Your task to perform on an android device: toggle priority inbox in the gmail app Image 0: 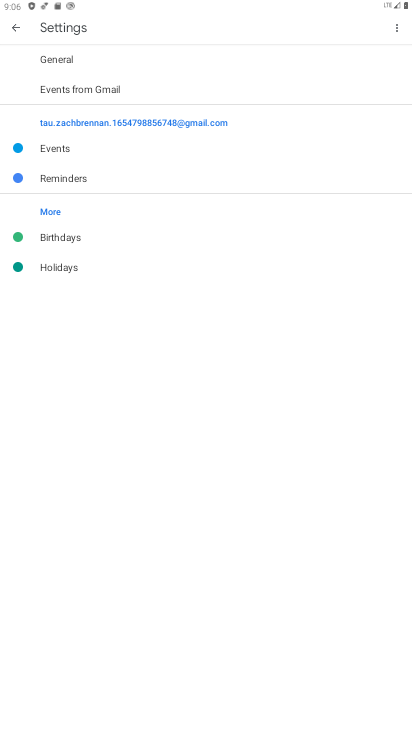
Step 0: press home button
Your task to perform on an android device: toggle priority inbox in the gmail app Image 1: 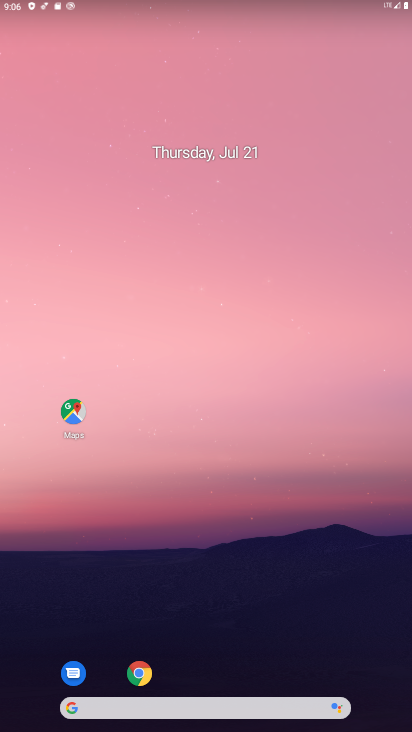
Step 1: drag from (232, 664) to (270, 40)
Your task to perform on an android device: toggle priority inbox in the gmail app Image 2: 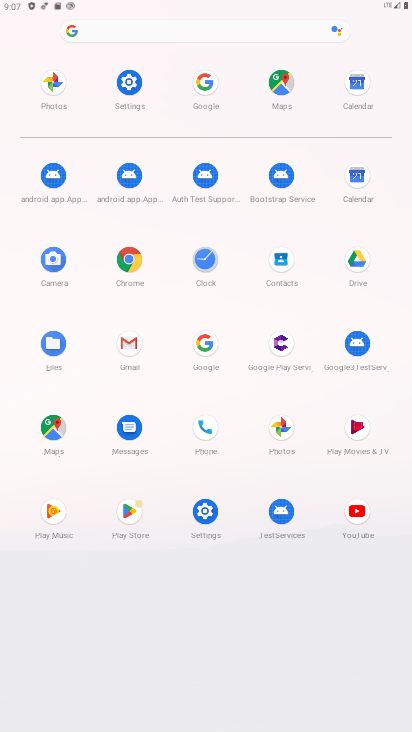
Step 2: click (127, 342)
Your task to perform on an android device: toggle priority inbox in the gmail app Image 3: 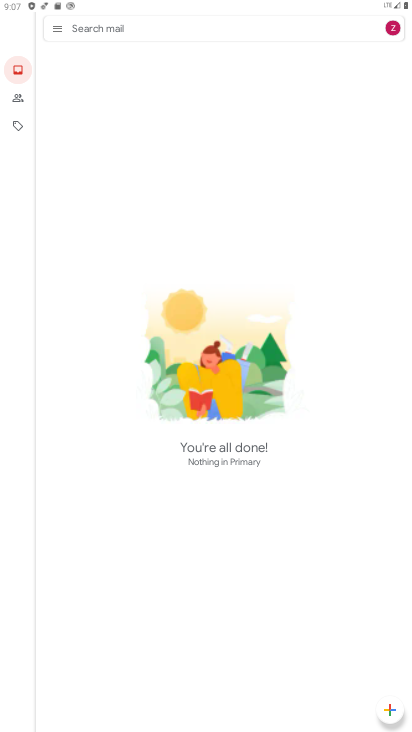
Step 3: press home button
Your task to perform on an android device: toggle priority inbox in the gmail app Image 4: 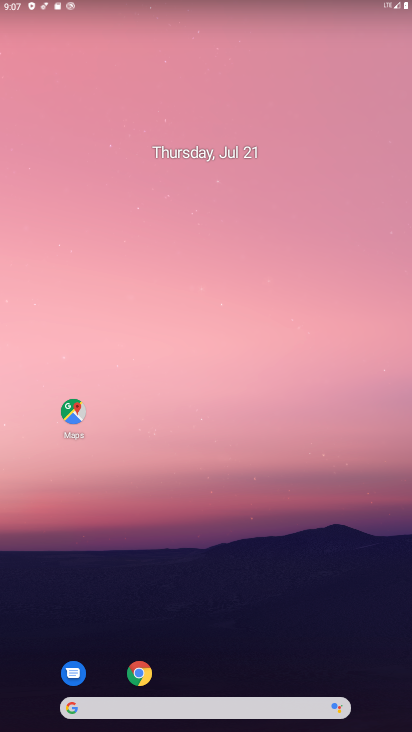
Step 4: drag from (183, 651) to (202, 81)
Your task to perform on an android device: toggle priority inbox in the gmail app Image 5: 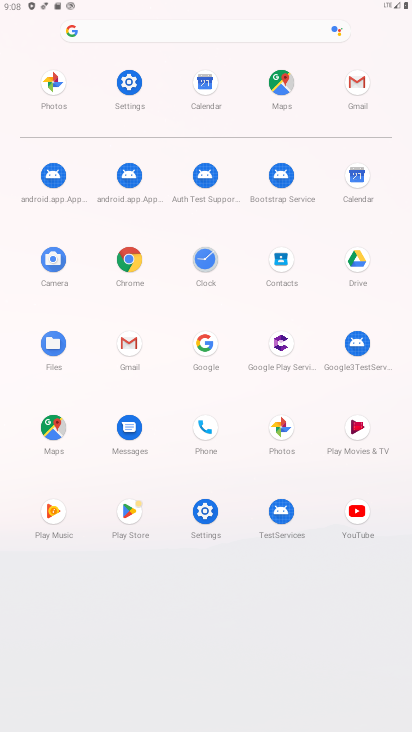
Step 5: click (342, 96)
Your task to perform on an android device: toggle priority inbox in the gmail app Image 6: 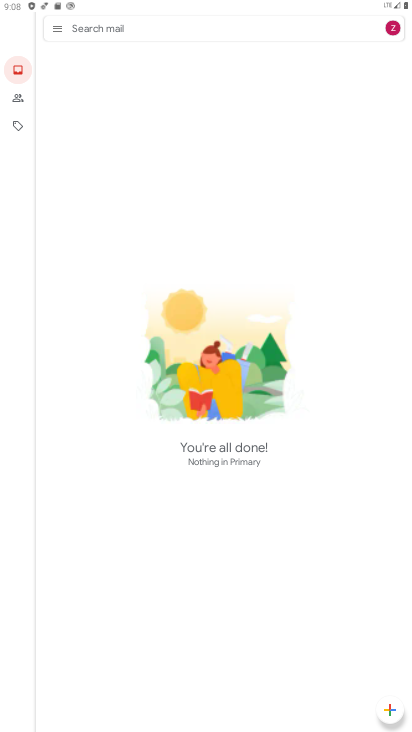
Step 6: click (53, 30)
Your task to perform on an android device: toggle priority inbox in the gmail app Image 7: 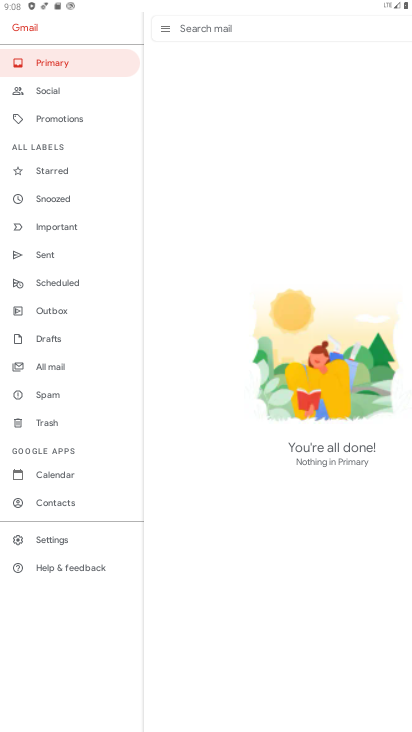
Step 7: click (60, 538)
Your task to perform on an android device: toggle priority inbox in the gmail app Image 8: 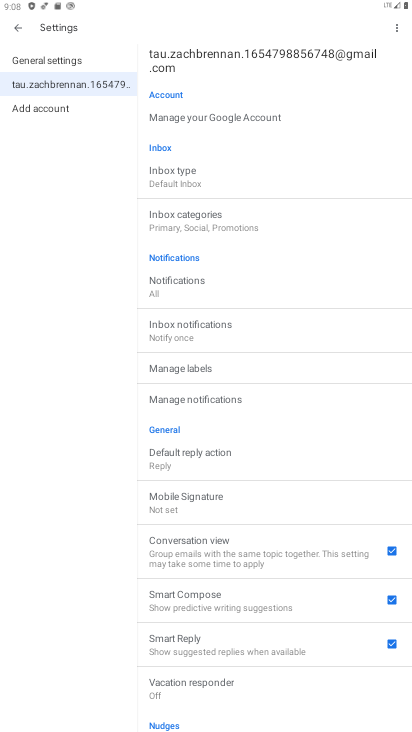
Step 8: click (155, 172)
Your task to perform on an android device: toggle priority inbox in the gmail app Image 9: 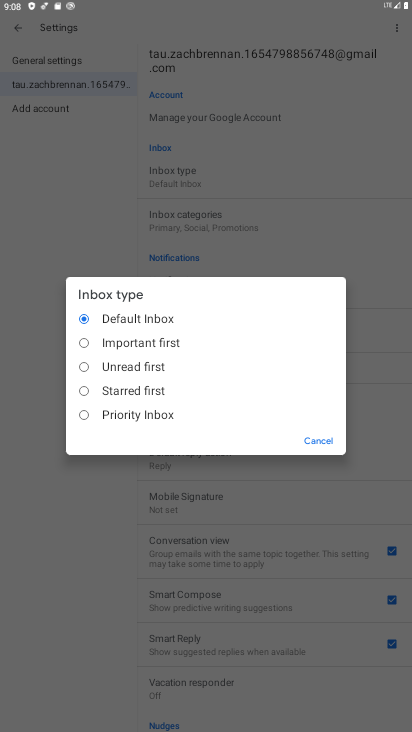
Step 9: click (99, 418)
Your task to perform on an android device: toggle priority inbox in the gmail app Image 10: 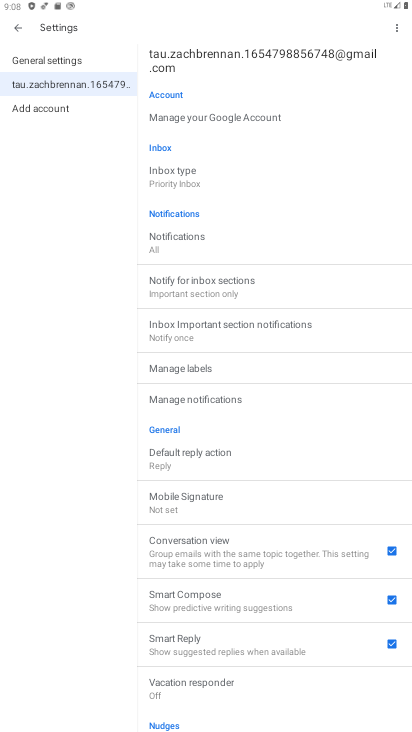
Step 10: click (153, 165)
Your task to perform on an android device: toggle priority inbox in the gmail app Image 11: 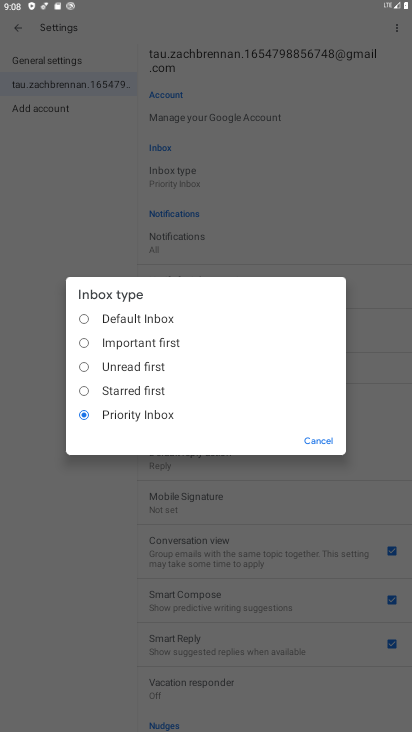
Step 11: click (135, 317)
Your task to perform on an android device: toggle priority inbox in the gmail app Image 12: 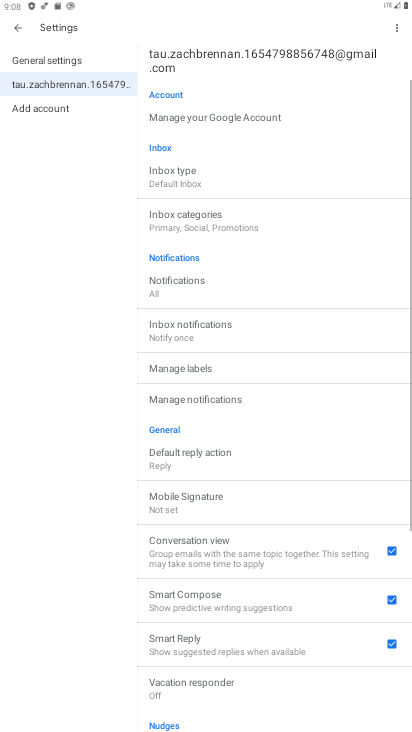
Step 12: task complete